Your task to perform on an android device: Search for pizza restaurants on Maps Image 0: 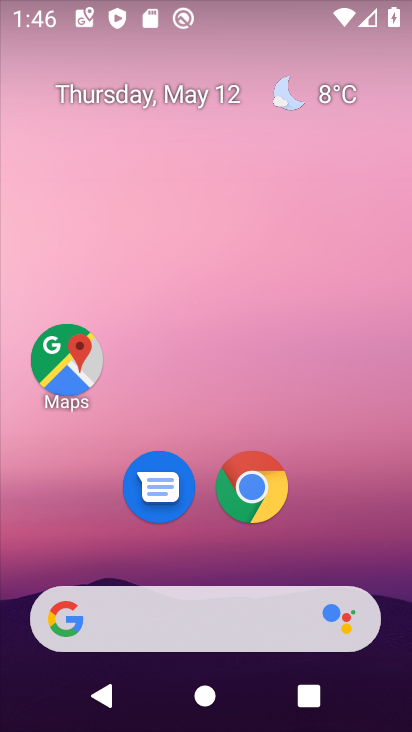
Step 0: click (51, 367)
Your task to perform on an android device: Search for pizza restaurants on Maps Image 1: 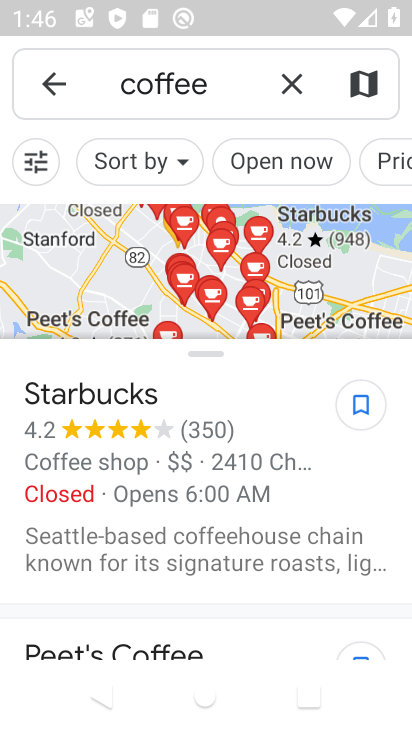
Step 1: click (298, 95)
Your task to perform on an android device: Search for pizza restaurants on Maps Image 2: 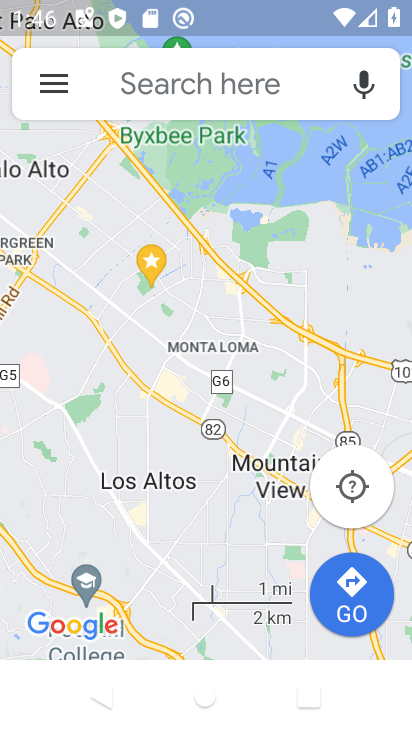
Step 2: click (251, 95)
Your task to perform on an android device: Search for pizza restaurants on Maps Image 3: 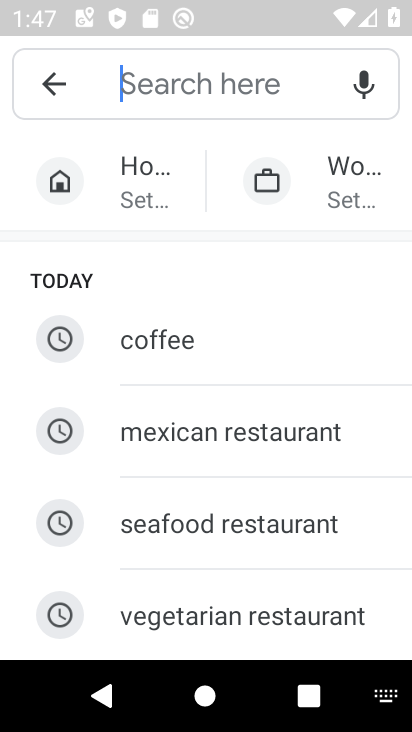
Step 3: type "pizza restaurant"
Your task to perform on an android device: Search for pizza restaurants on Maps Image 4: 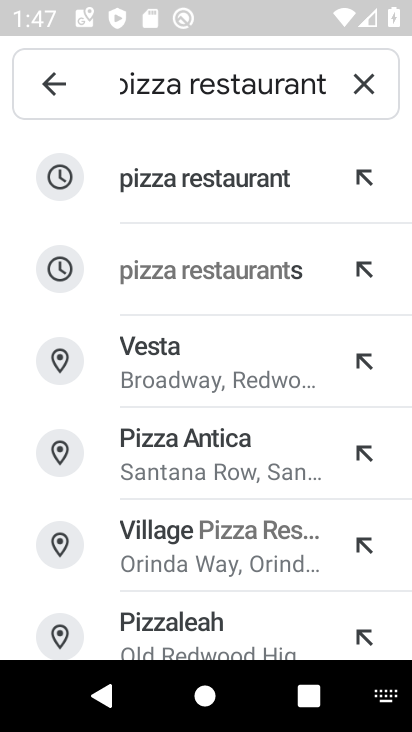
Step 4: click (184, 182)
Your task to perform on an android device: Search for pizza restaurants on Maps Image 5: 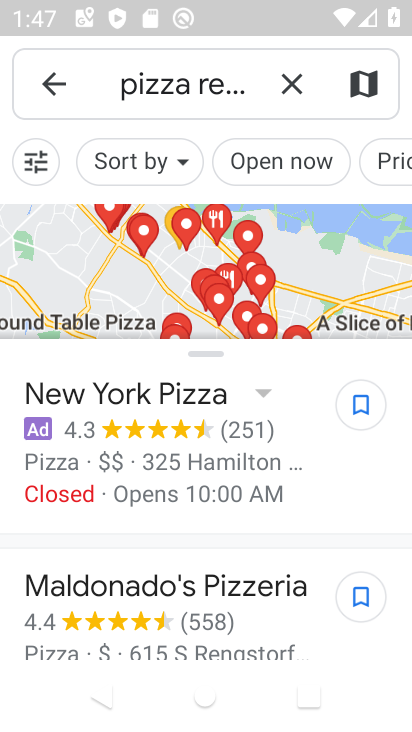
Step 5: task complete